Your task to perform on an android device: Open Google Chrome Image 0: 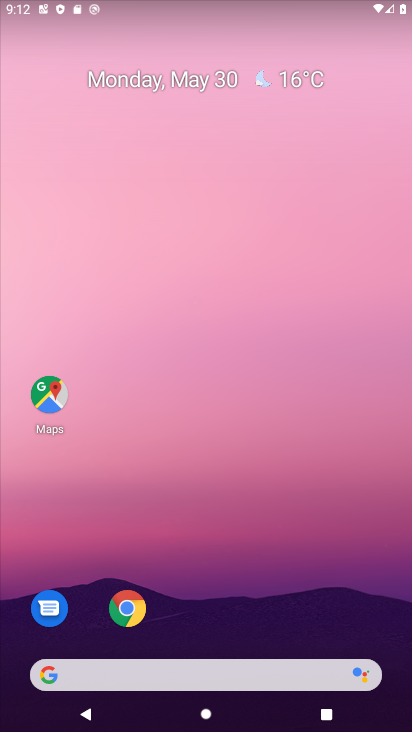
Step 0: click (123, 611)
Your task to perform on an android device: Open Google Chrome Image 1: 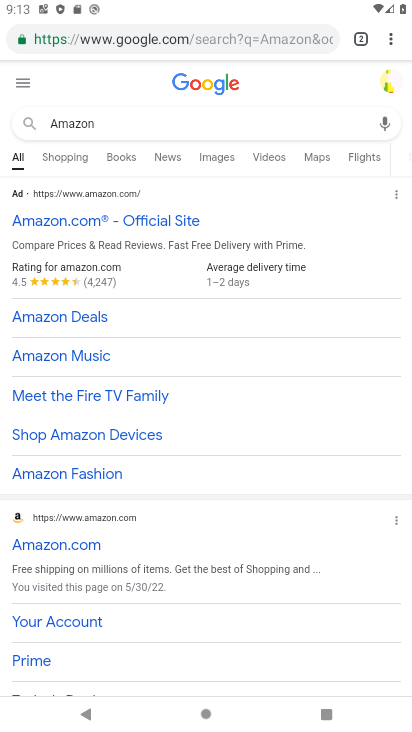
Step 1: task complete